Your task to perform on an android device: change keyboard looks Image 0: 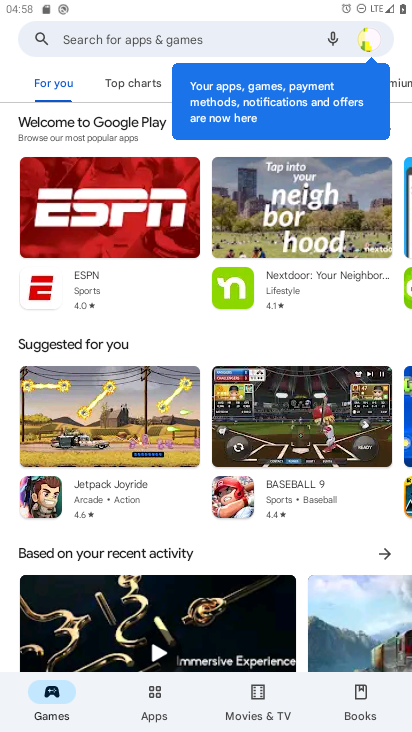
Step 0: press home button
Your task to perform on an android device: change keyboard looks Image 1: 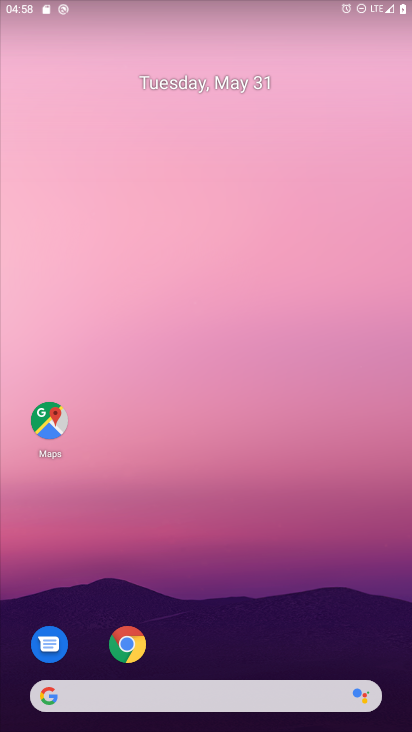
Step 1: drag from (283, 620) to (220, 136)
Your task to perform on an android device: change keyboard looks Image 2: 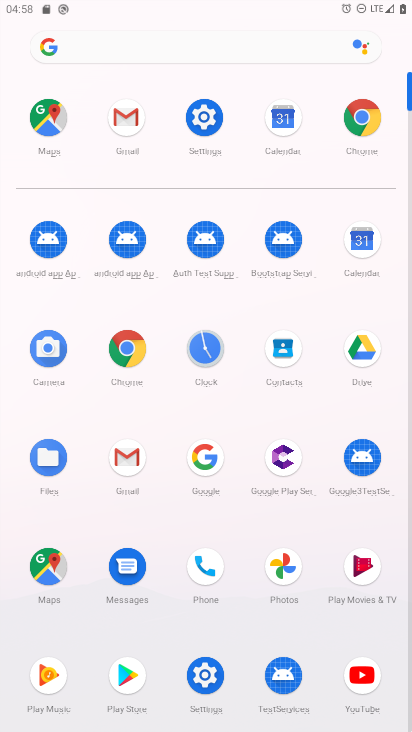
Step 2: click (197, 129)
Your task to perform on an android device: change keyboard looks Image 3: 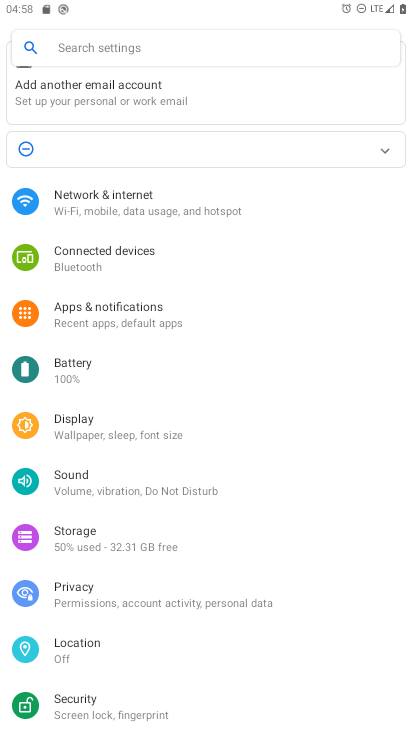
Step 3: drag from (172, 635) to (172, 151)
Your task to perform on an android device: change keyboard looks Image 4: 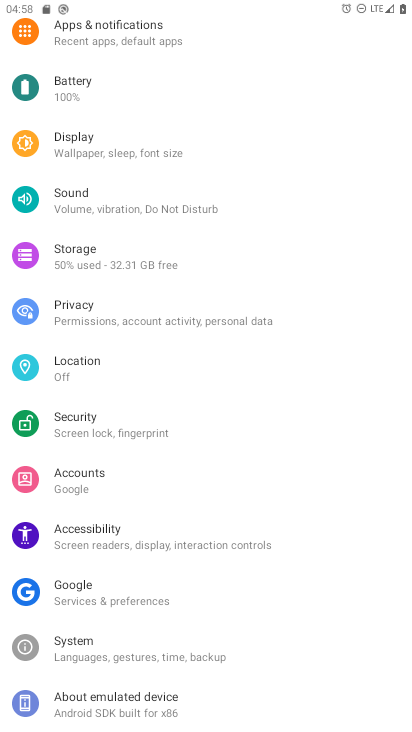
Step 4: click (153, 654)
Your task to perform on an android device: change keyboard looks Image 5: 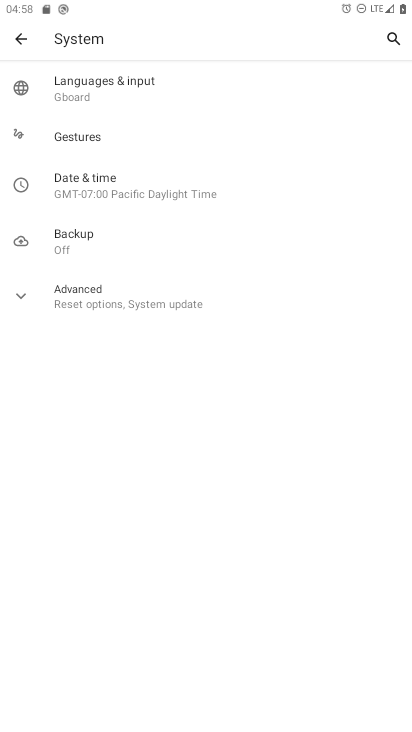
Step 5: click (87, 89)
Your task to perform on an android device: change keyboard looks Image 6: 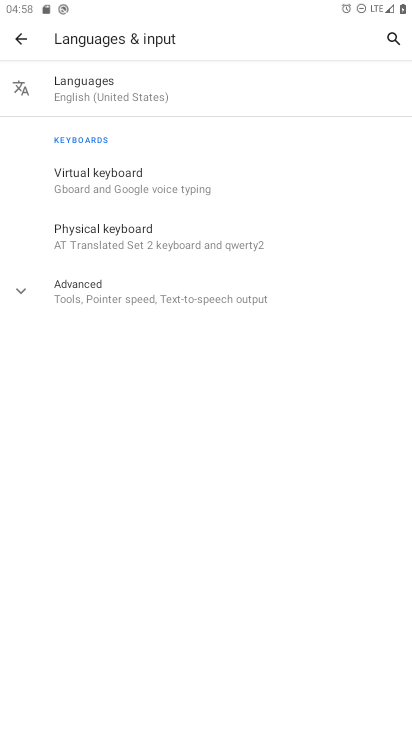
Step 6: click (128, 185)
Your task to perform on an android device: change keyboard looks Image 7: 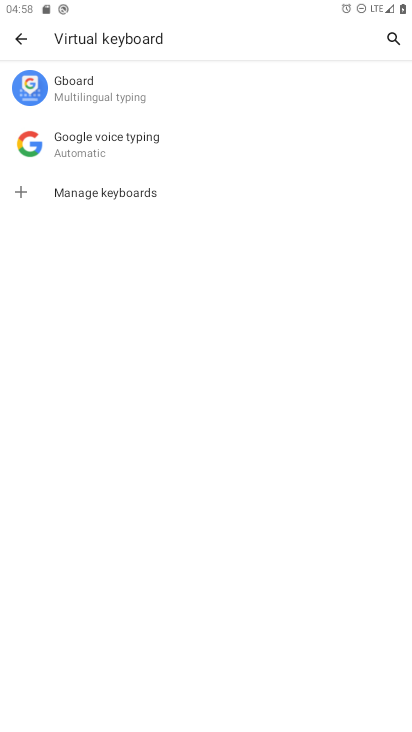
Step 7: click (127, 75)
Your task to perform on an android device: change keyboard looks Image 8: 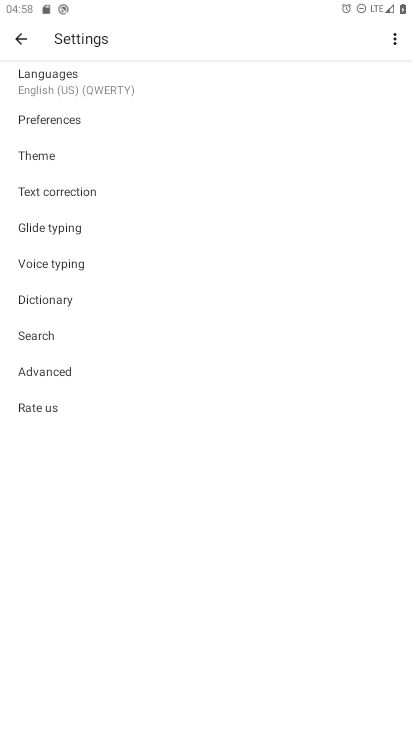
Step 8: click (45, 165)
Your task to perform on an android device: change keyboard looks Image 9: 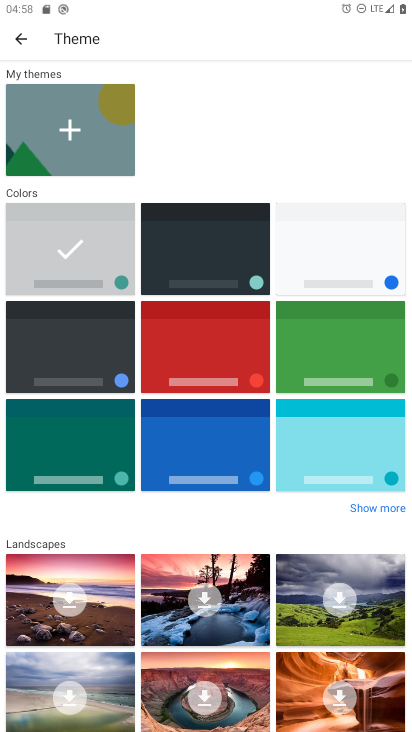
Step 9: click (309, 245)
Your task to perform on an android device: change keyboard looks Image 10: 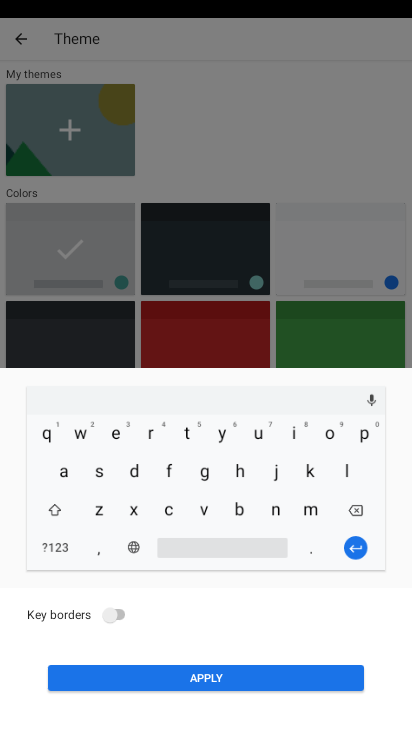
Step 10: click (231, 684)
Your task to perform on an android device: change keyboard looks Image 11: 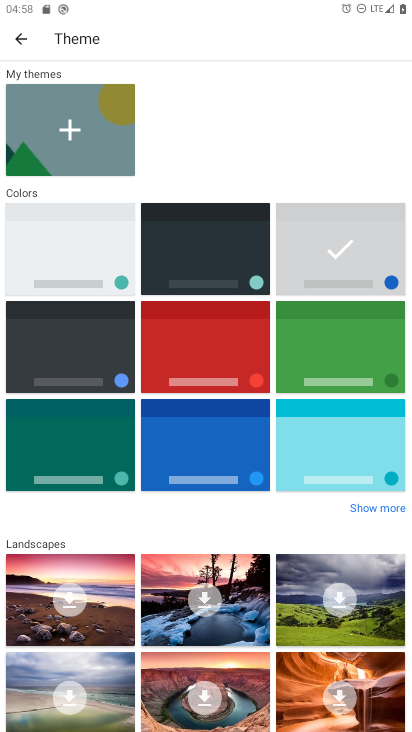
Step 11: task complete